Your task to perform on an android device: Toggle the flashlight Image 0: 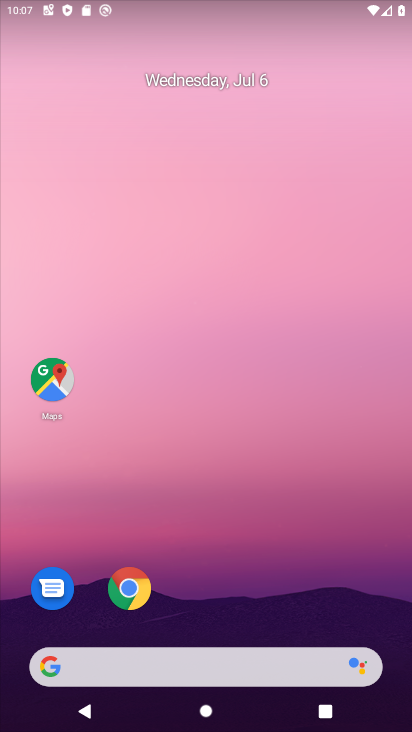
Step 0: drag from (260, 585) to (238, 133)
Your task to perform on an android device: Toggle the flashlight Image 1: 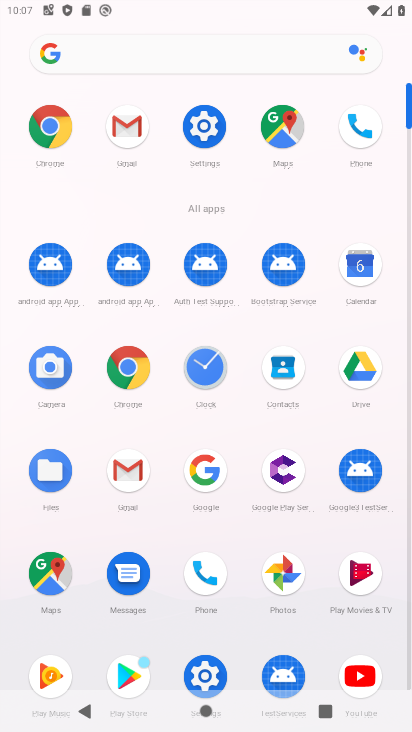
Step 1: click (195, 128)
Your task to perform on an android device: Toggle the flashlight Image 2: 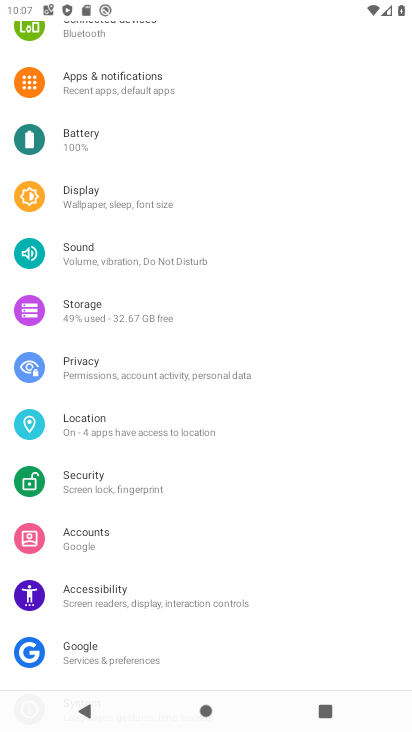
Step 2: task complete